Your task to perform on an android device: add a contact Image 0: 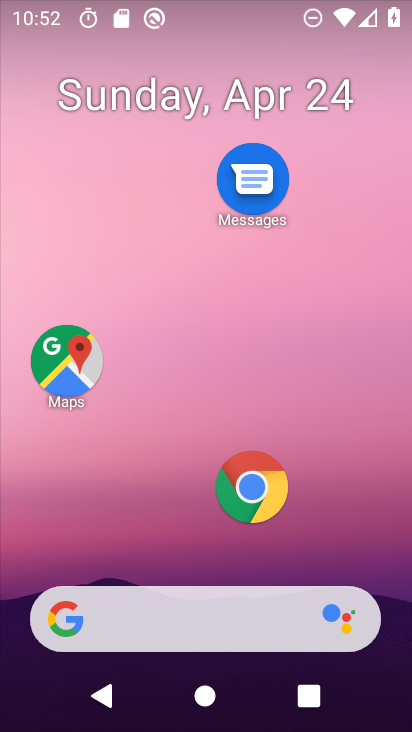
Step 0: drag from (151, 552) to (294, 2)
Your task to perform on an android device: add a contact Image 1: 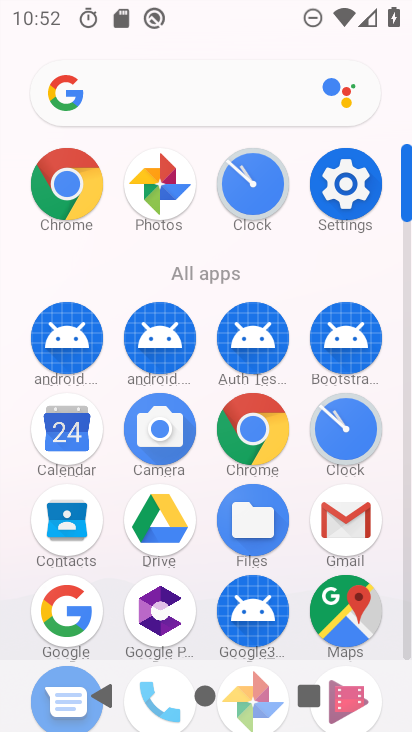
Step 1: click (72, 521)
Your task to perform on an android device: add a contact Image 2: 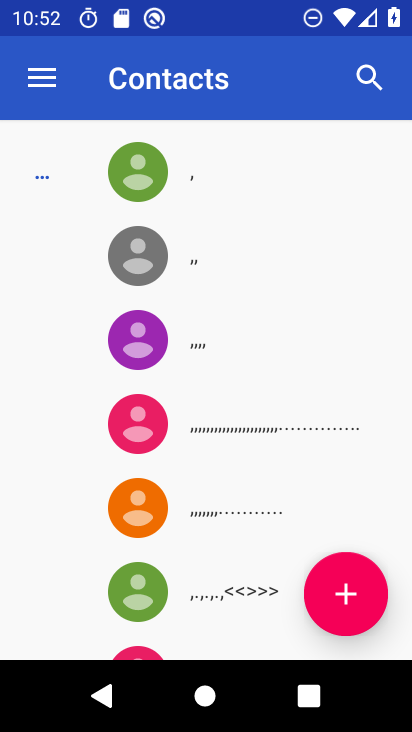
Step 2: click (349, 591)
Your task to perform on an android device: add a contact Image 3: 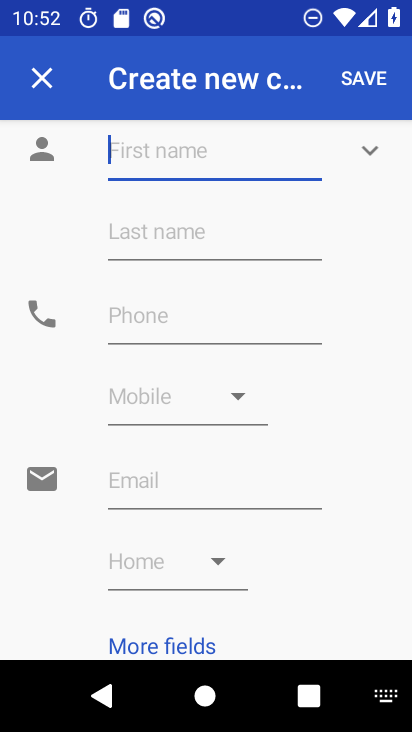
Step 3: type "doloe"
Your task to perform on an android device: add a contact Image 4: 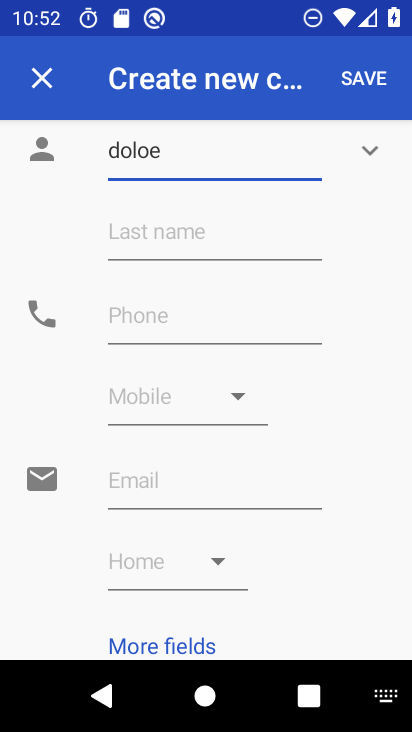
Step 4: click (371, 81)
Your task to perform on an android device: add a contact Image 5: 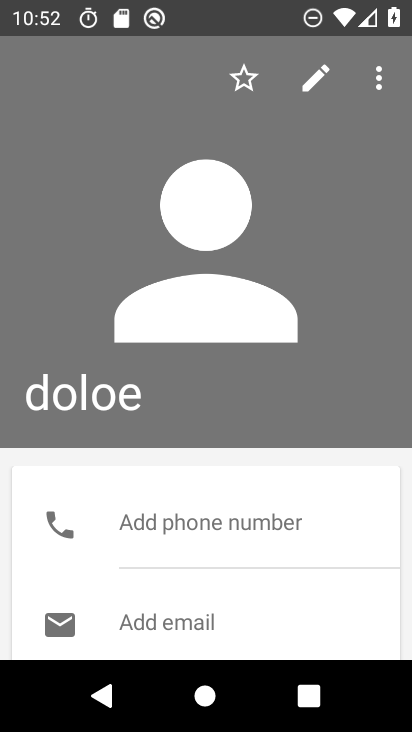
Step 5: task complete